Your task to perform on an android device: check the backup settings in the google photos Image 0: 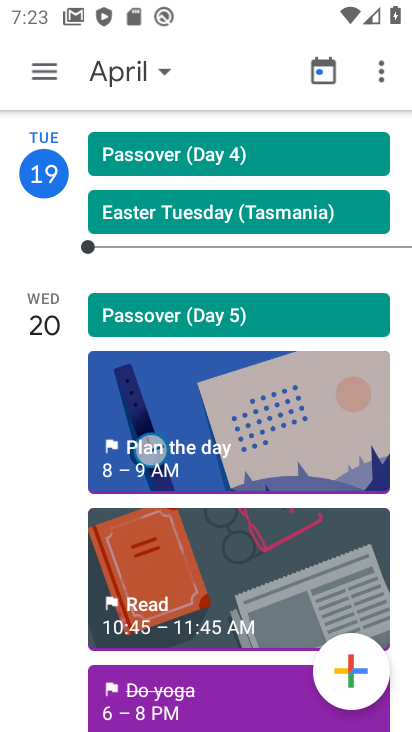
Step 0: press home button
Your task to perform on an android device: check the backup settings in the google photos Image 1: 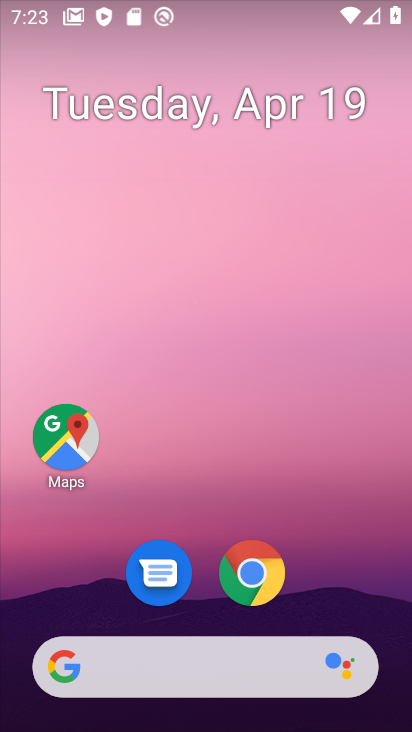
Step 1: drag from (371, 608) to (355, 116)
Your task to perform on an android device: check the backup settings in the google photos Image 2: 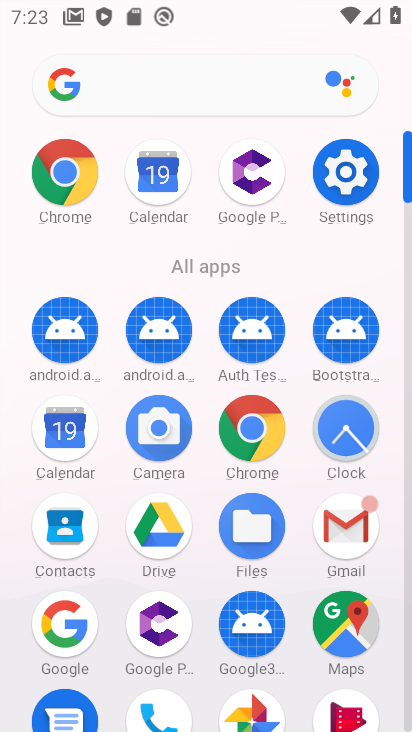
Step 2: click (235, 699)
Your task to perform on an android device: check the backup settings in the google photos Image 3: 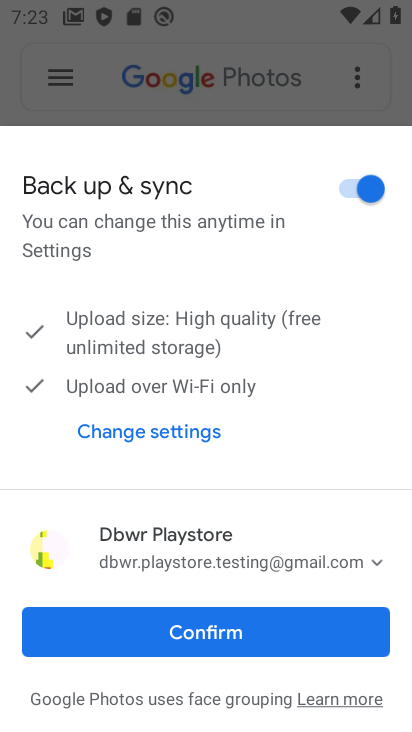
Step 3: click (257, 635)
Your task to perform on an android device: check the backup settings in the google photos Image 4: 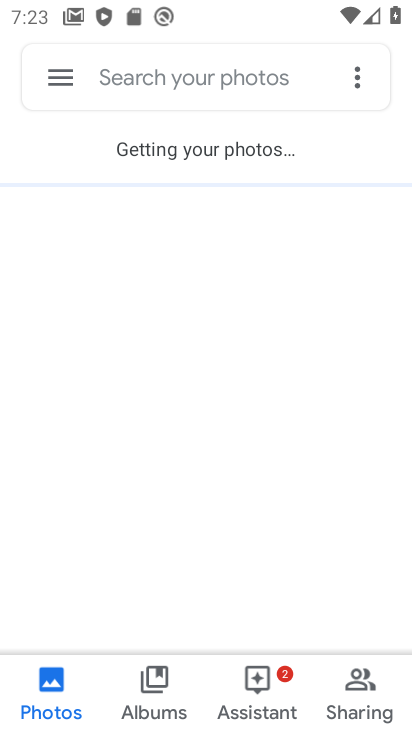
Step 4: click (55, 71)
Your task to perform on an android device: check the backup settings in the google photos Image 5: 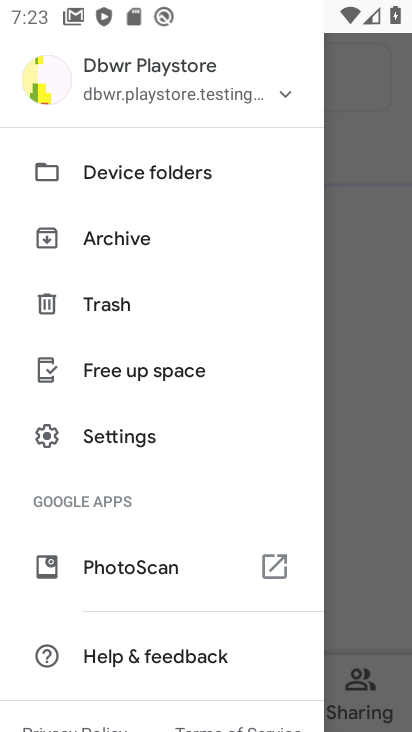
Step 5: click (119, 430)
Your task to perform on an android device: check the backup settings in the google photos Image 6: 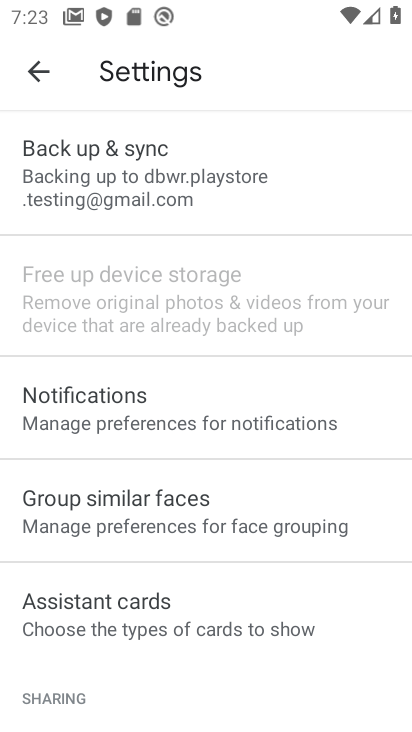
Step 6: click (107, 154)
Your task to perform on an android device: check the backup settings in the google photos Image 7: 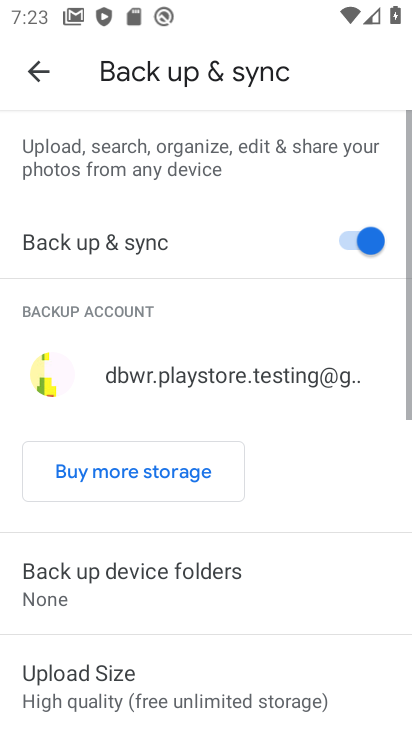
Step 7: task complete